Your task to perform on an android device: Add lg ultragear to the cart on ebay, then select checkout. Image 0: 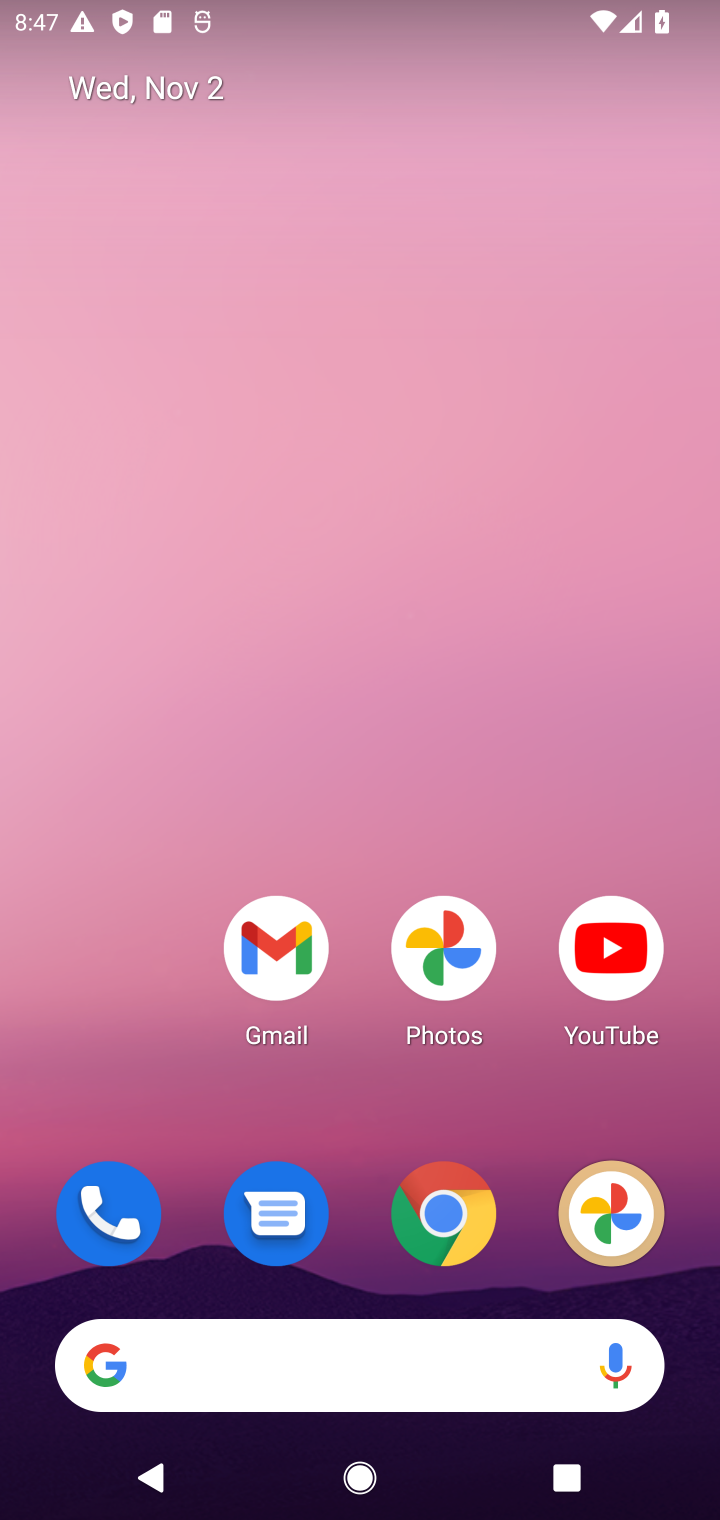
Step 0: click (442, 1217)
Your task to perform on an android device: Add lg ultragear to the cart on ebay, then select checkout. Image 1: 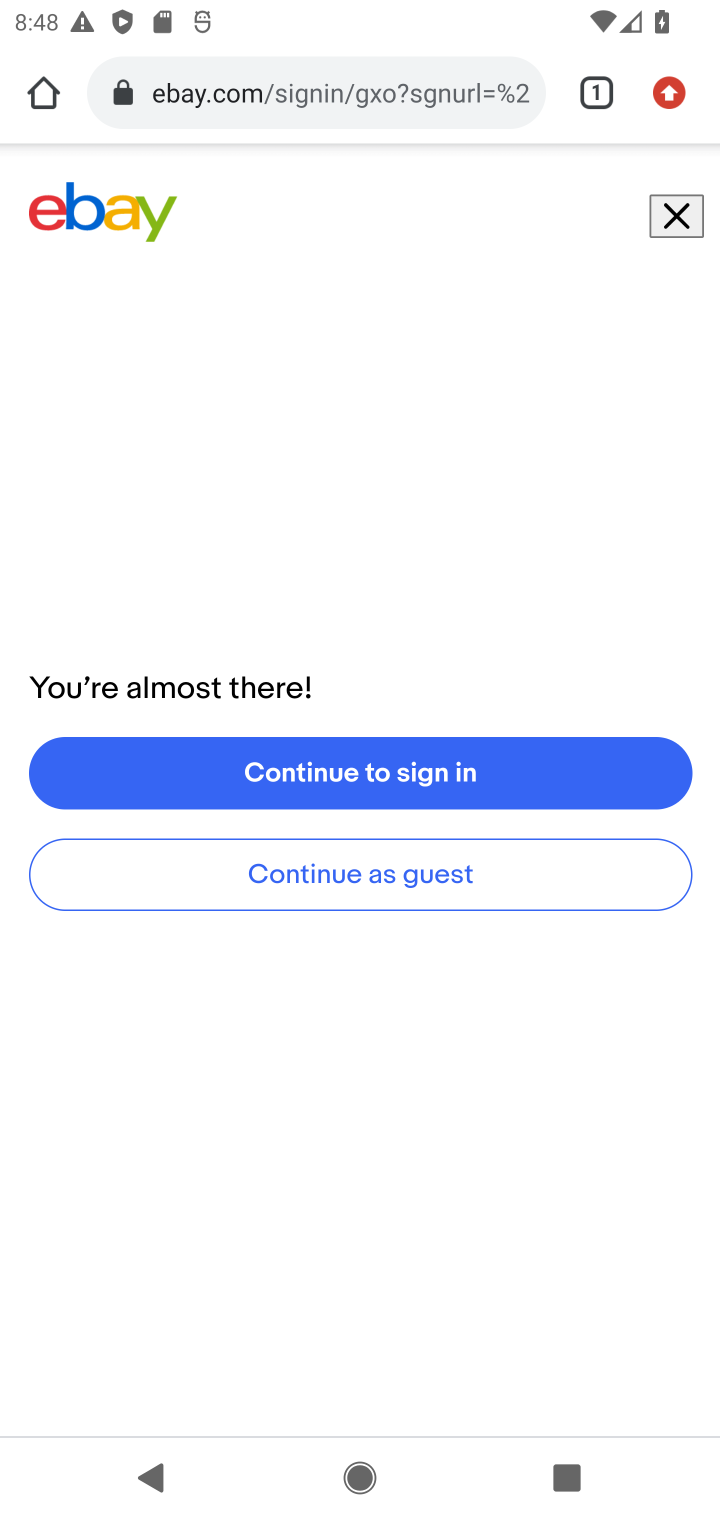
Step 1: click (673, 222)
Your task to perform on an android device: Add lg ultragear to the cart on ebay, then select checkout. Image 2: 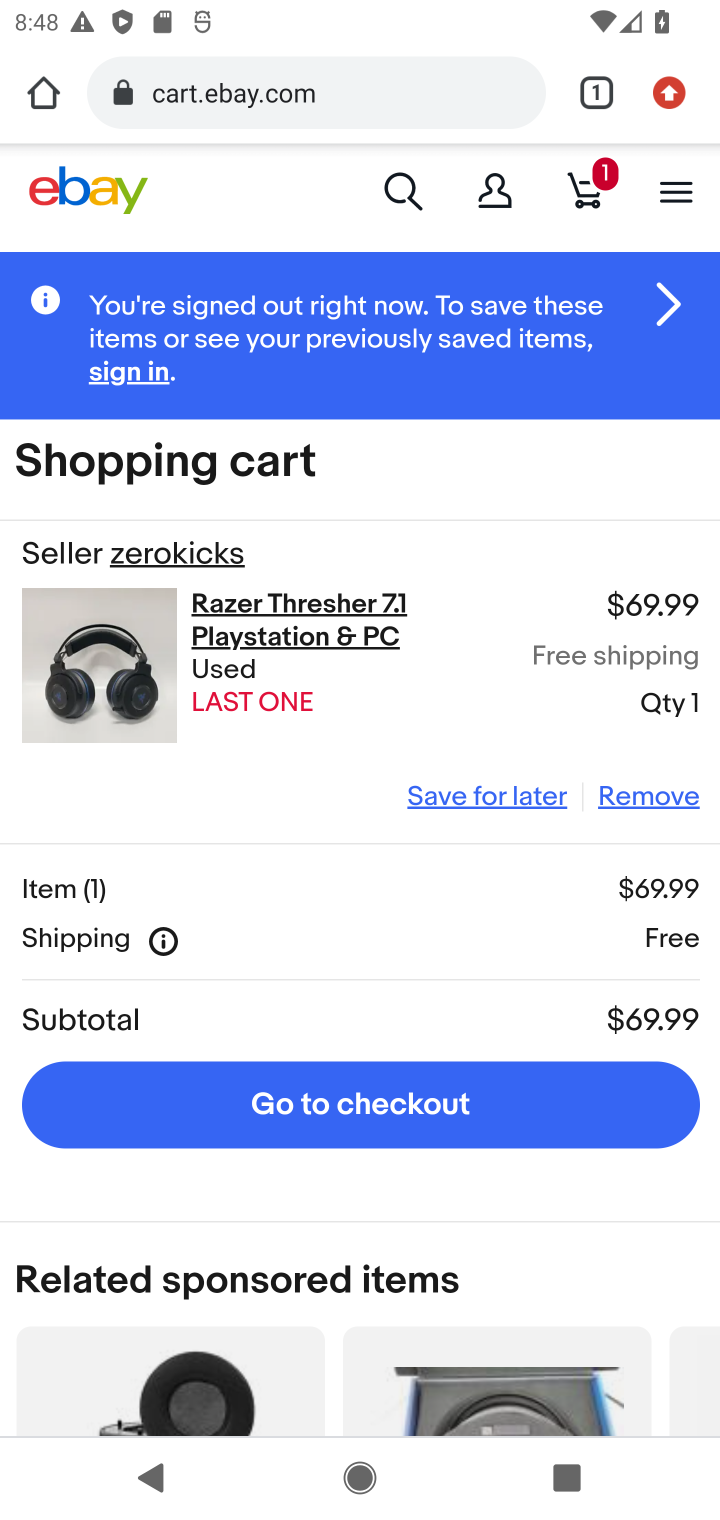
Step 2: click (404, 192)
Your task to perform on an android device: Add lg ultragear to the cart on ebay, then select checkout. Image 3: 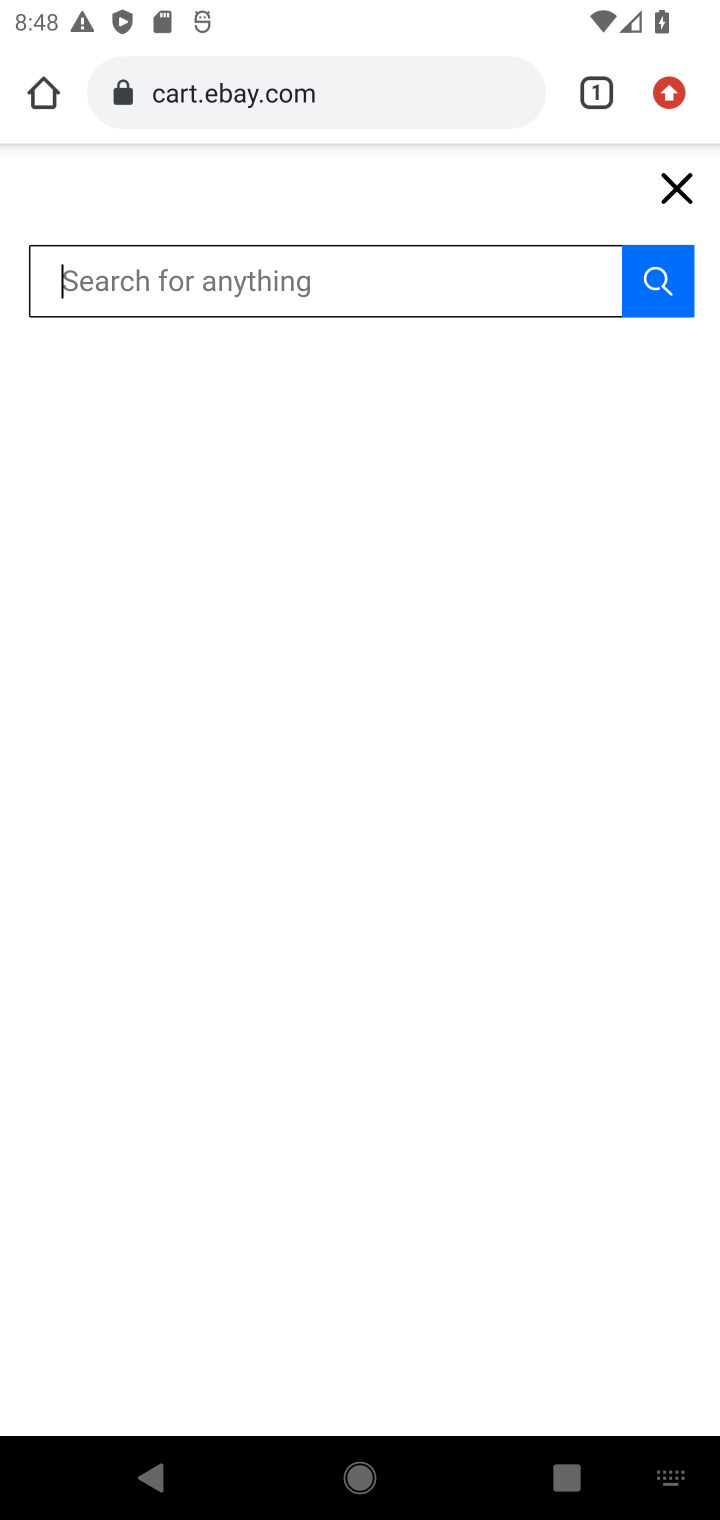
Step 3: type "lg ultragear"
Your task to perform on an android device: Add lg ultragear to the cart on ebay, then select checkout. Image 4: 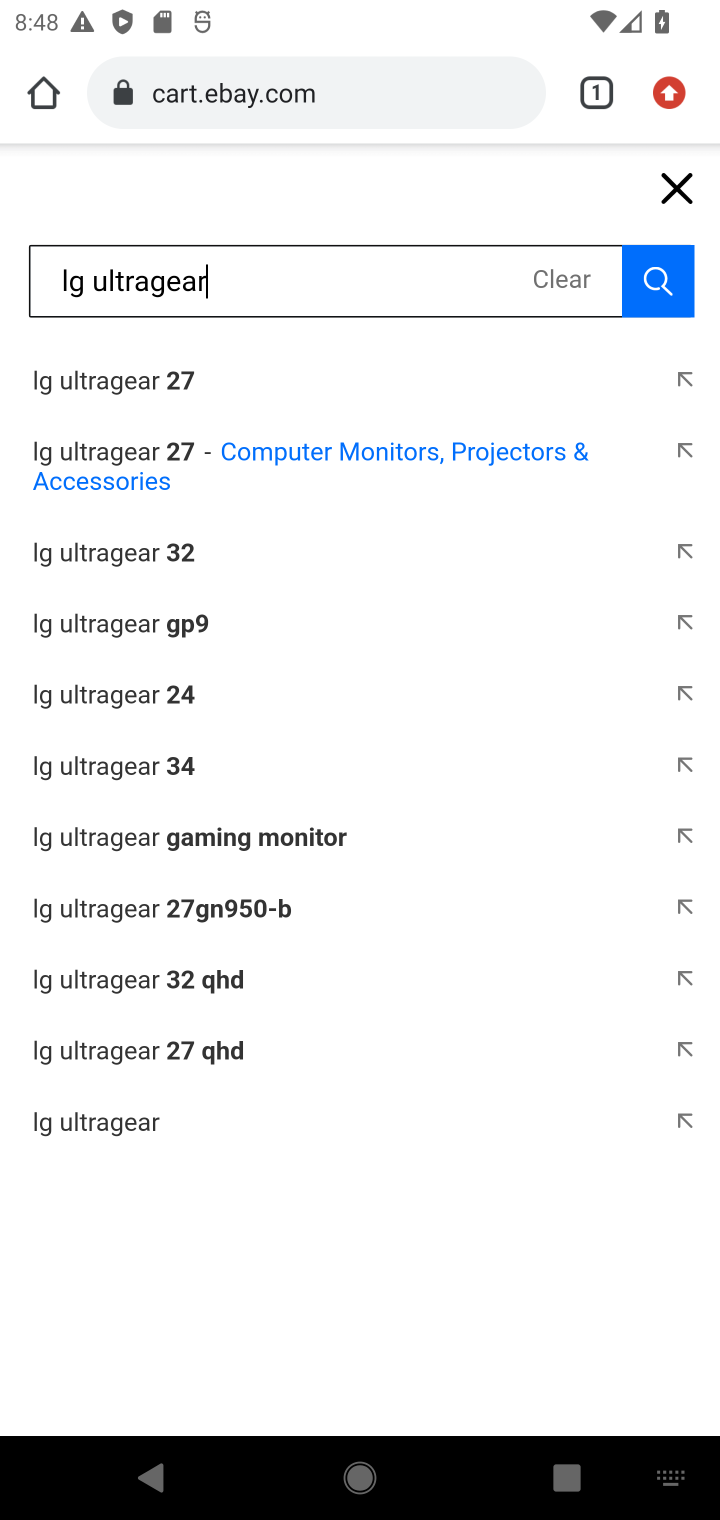
Step 4: click (35, 1136)
Your task to perform on an android device: Add lg ultragear to the cart on ebay, then select checkout. Image 5: 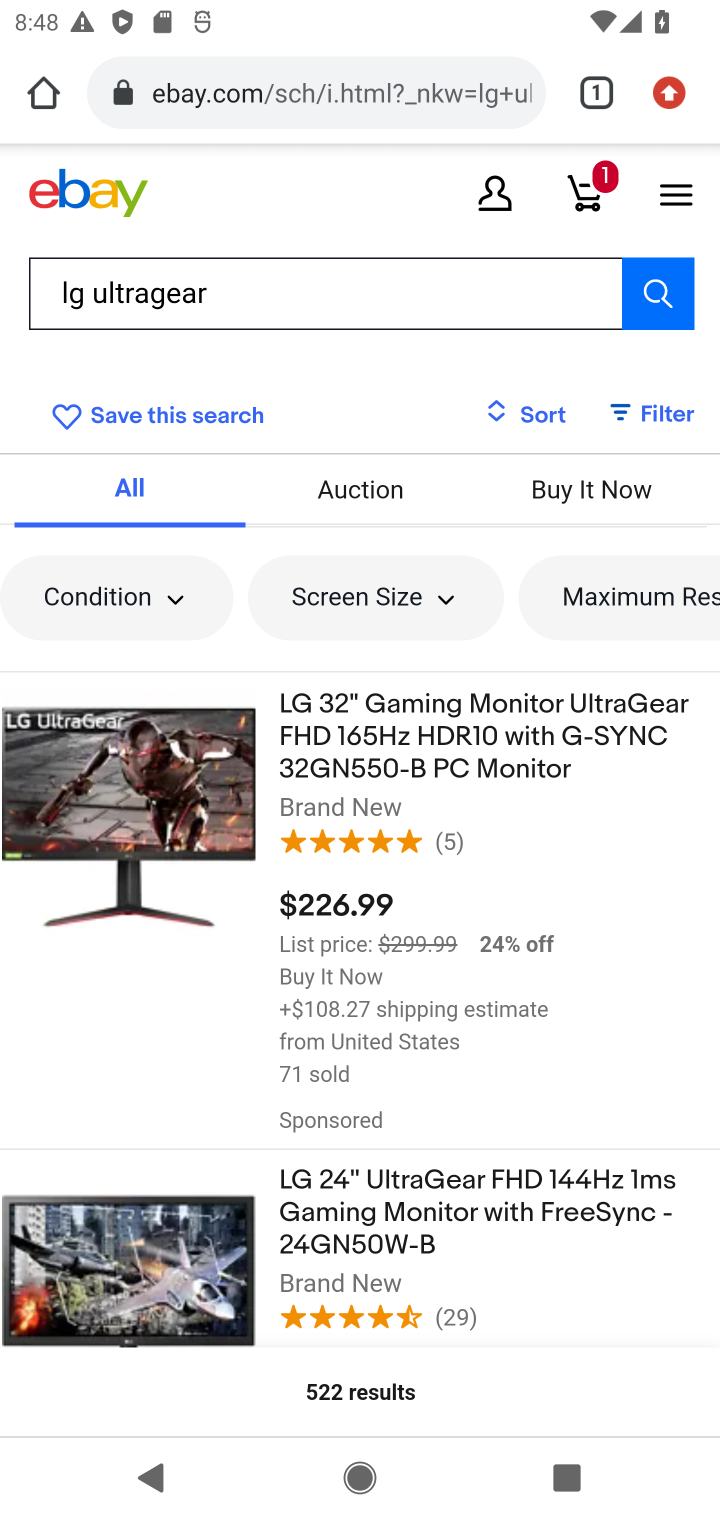
Step 5: click (289, 1273)
Your task to perform on an android device: Add lg ultragear to the cart on ebay, then select checkout. Image 6: 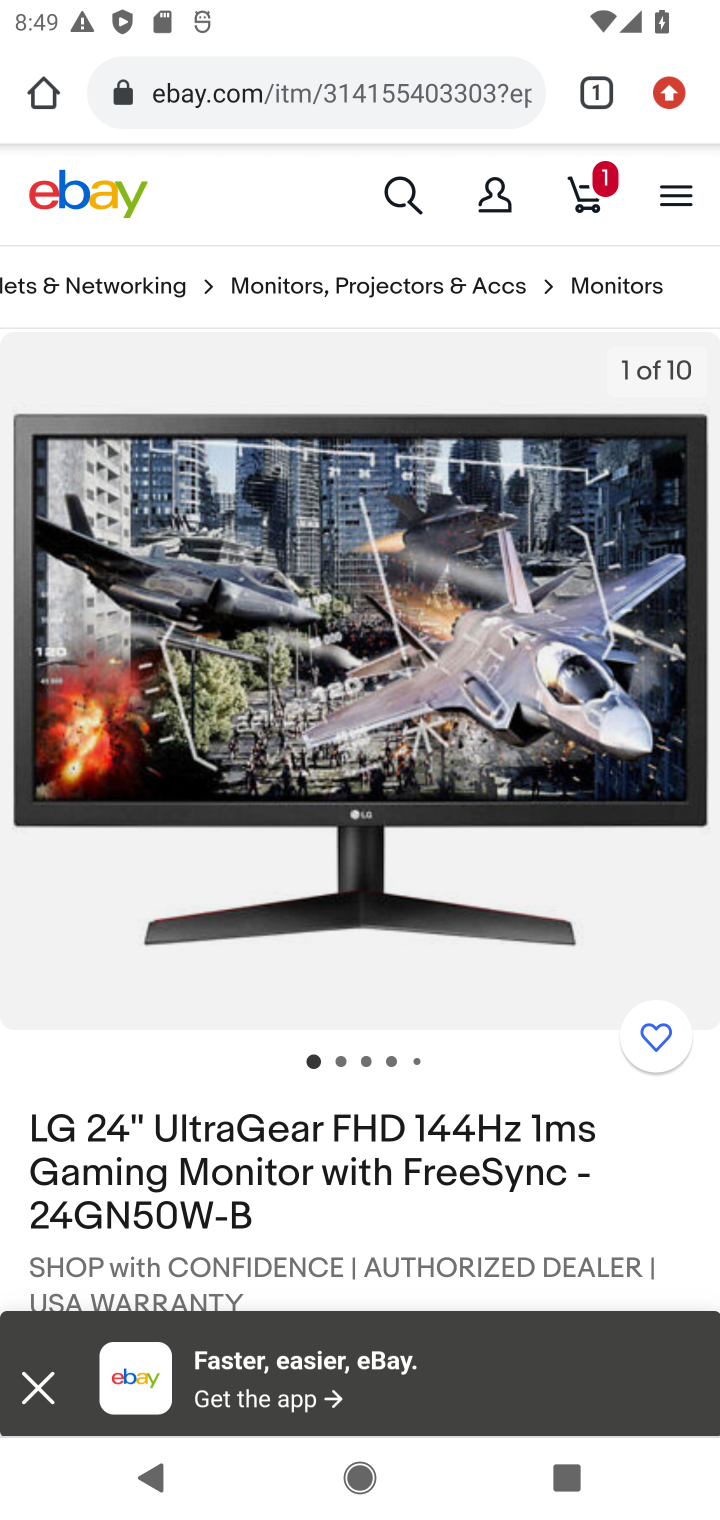
Step 6: drag from (303, 1131) to (335, 348)
Your task to perform on an android device: Add lg ultragear to the cart on ebay, then select checkout. Image 7: 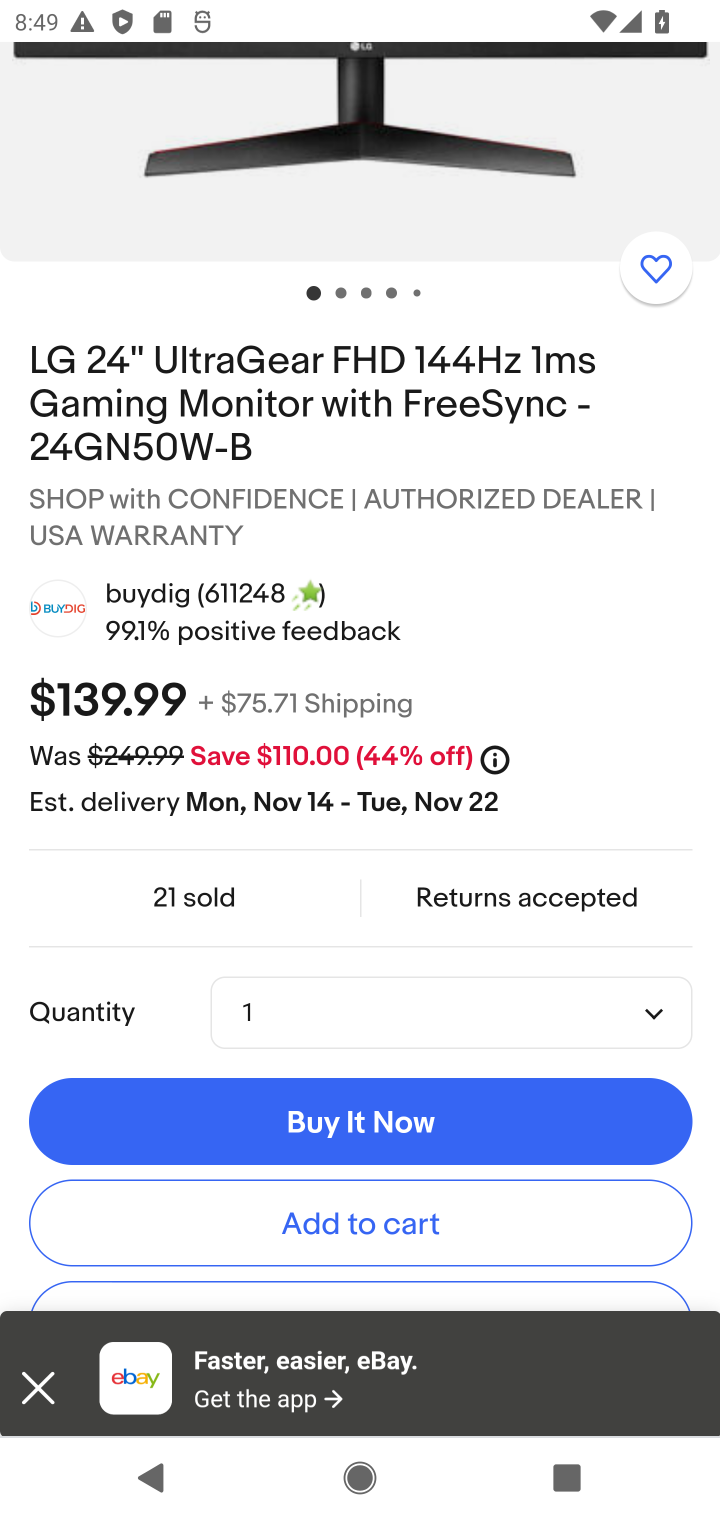
Step 7: drag from (417, 947) to (458, 420)
Your task to perform on an android device: Add lg ultragear to the cart on ebay, then select checkout. Image 8: 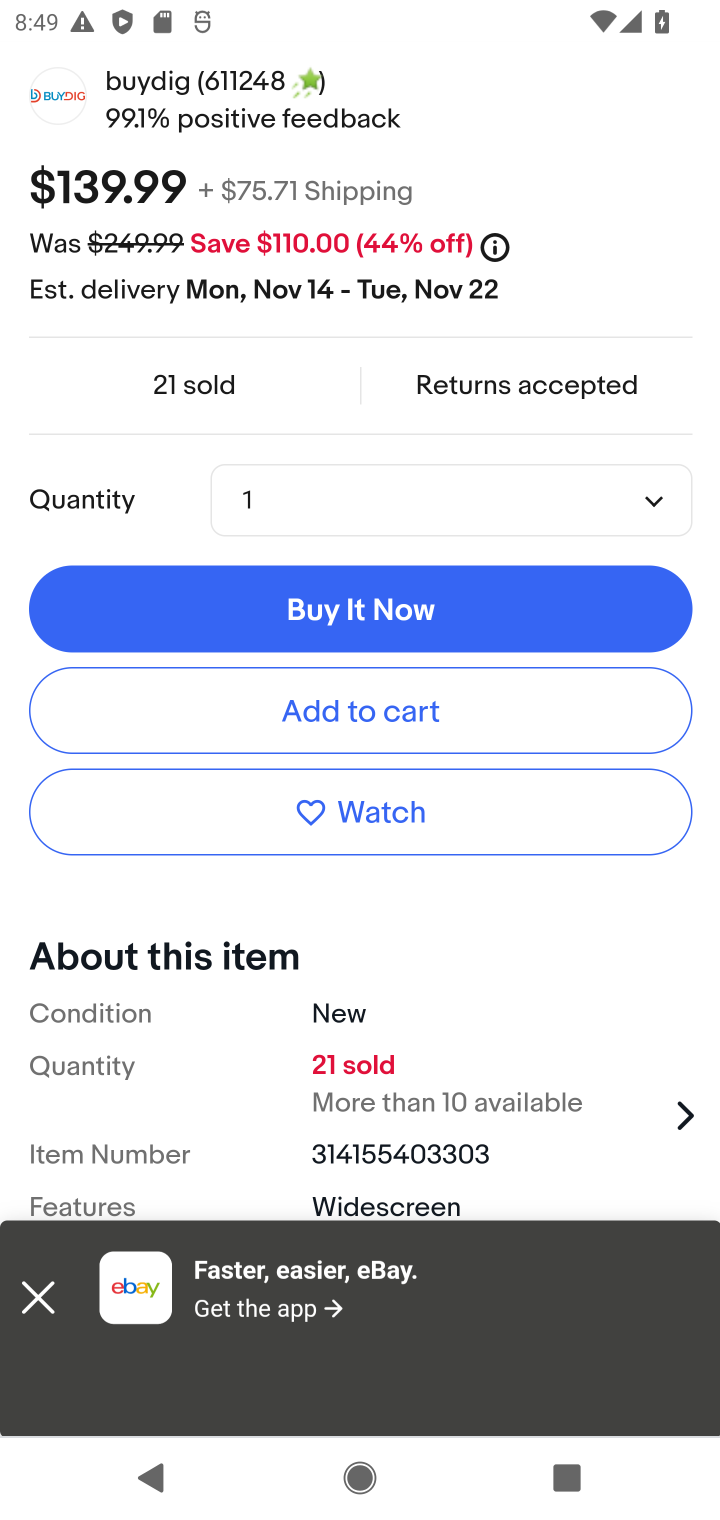
Step 8: click (386, 705)
Your task to perform on an android device: Add lg ultragear to the cart on ebay, then select checkout. Image 9: 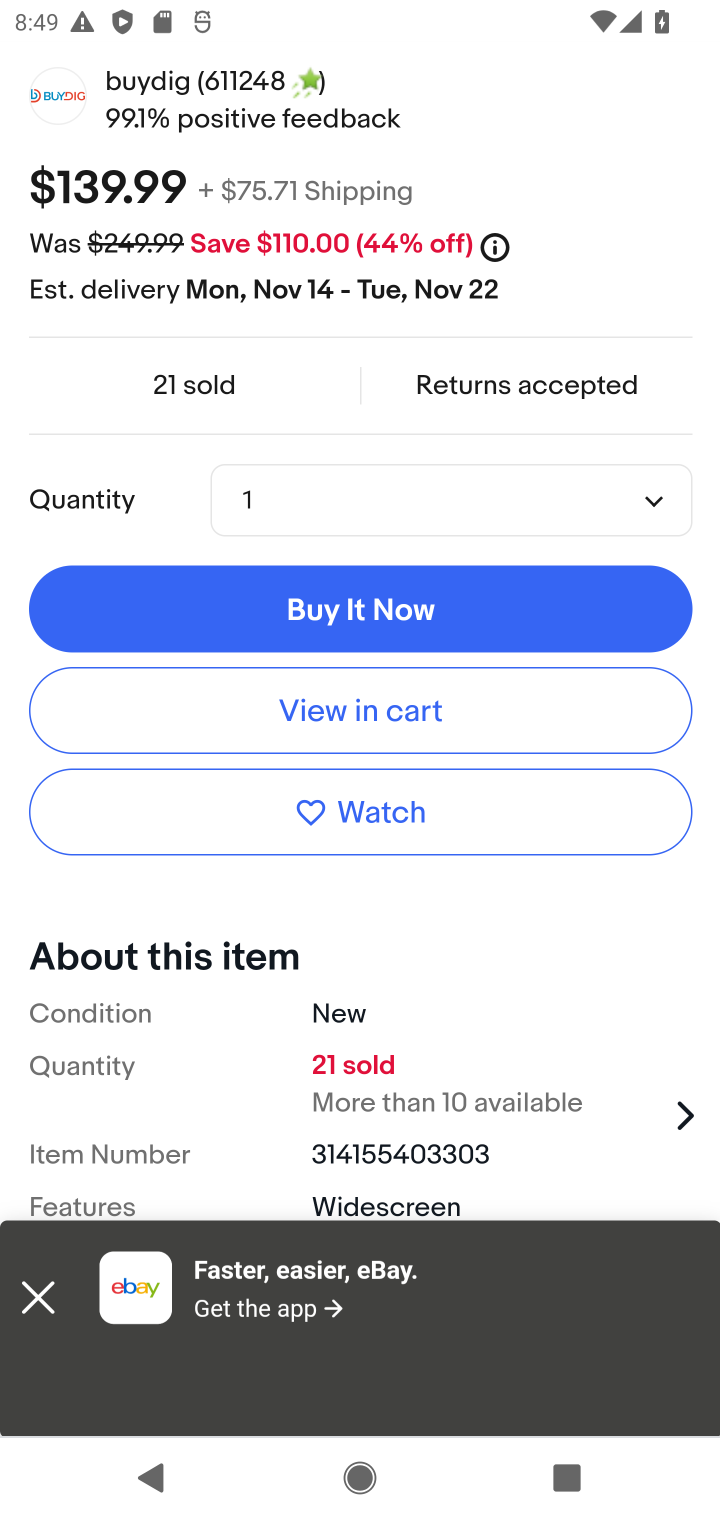
Step 9: click (386, 705)
Your task to perform on an android device: Add lg ultragear to the cart on ebay, then select checkout. Image 10: 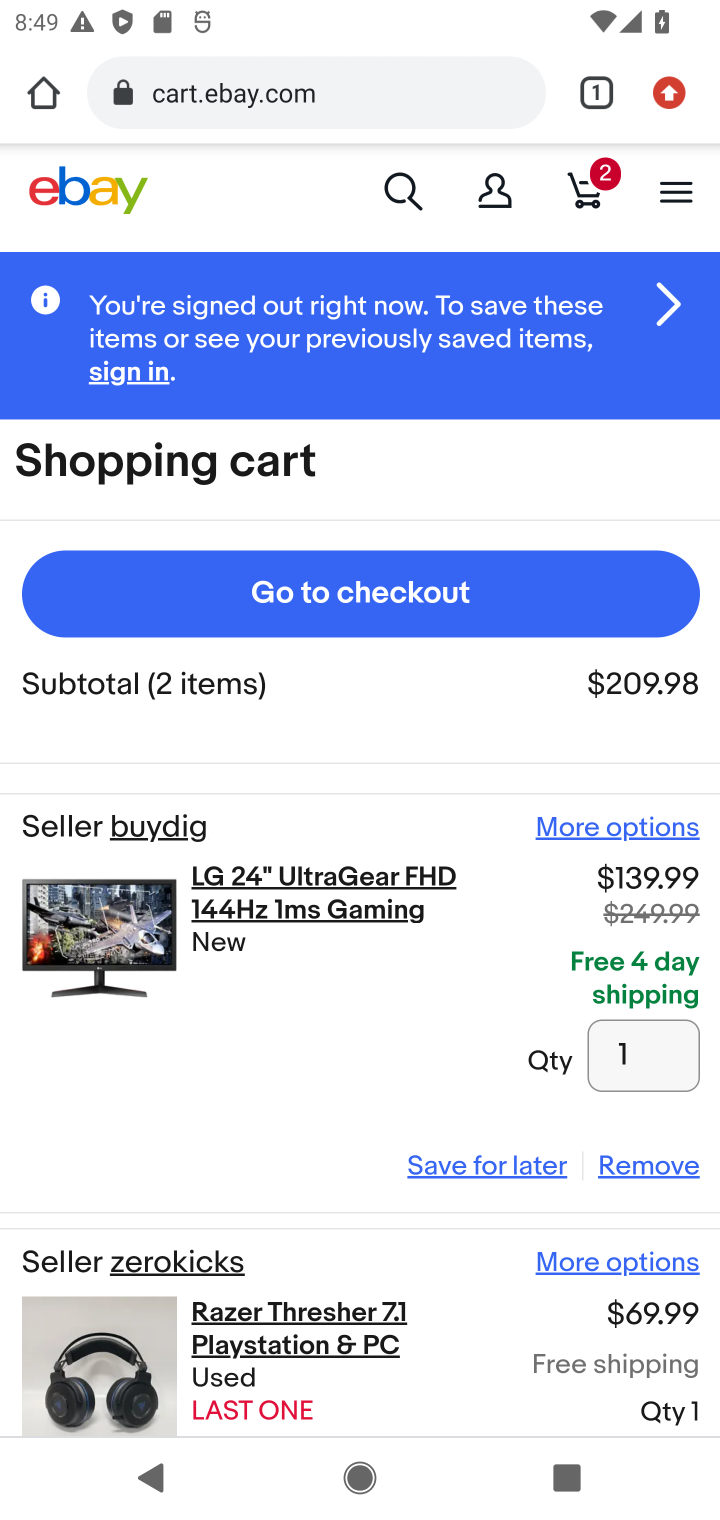
Step 10: click (350, 607)
Your task to perform on an android device: Add lg ultragear to the cart on ebay, then select checkout. Image 11: 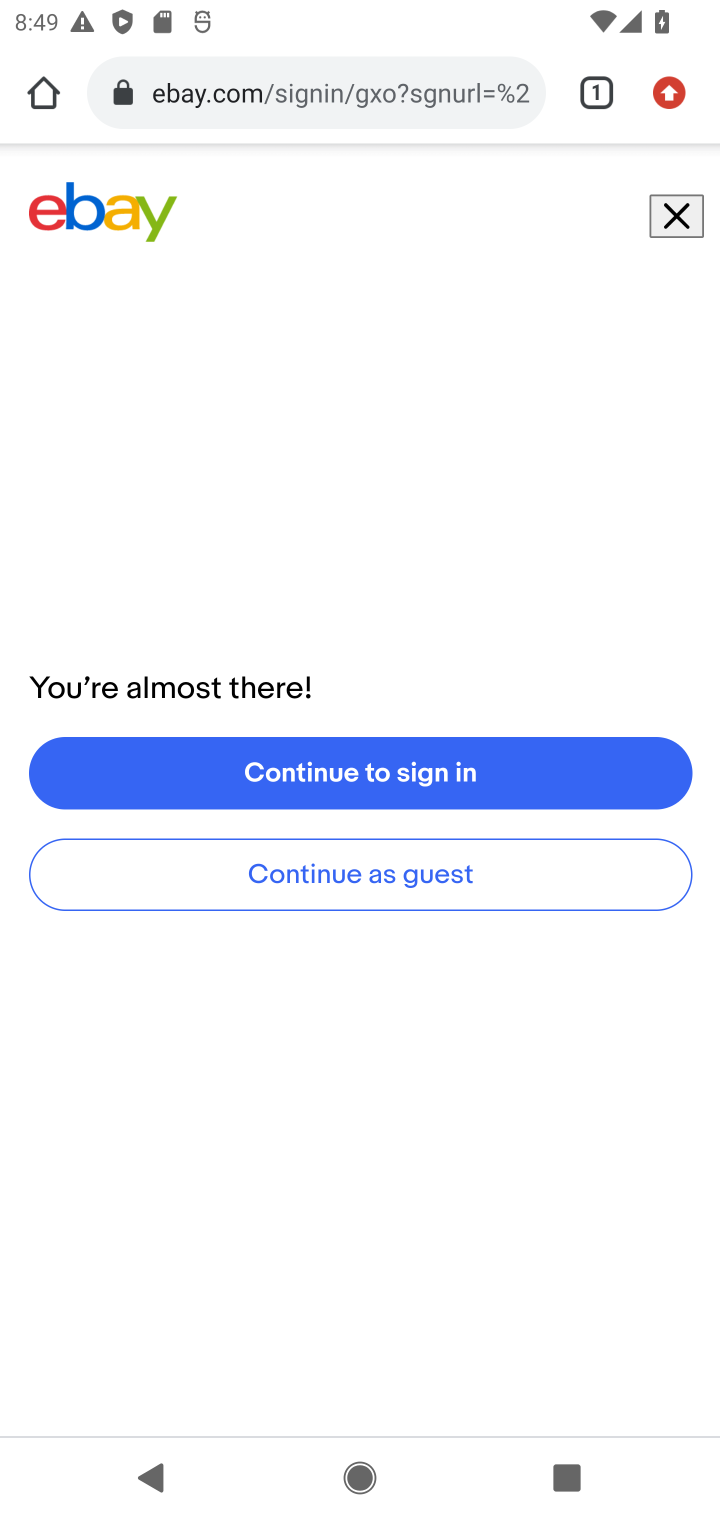
Step 11: task complete